Your task to perform on an android device: Open the Play Movies app and select the watchlist tab. Image 0: 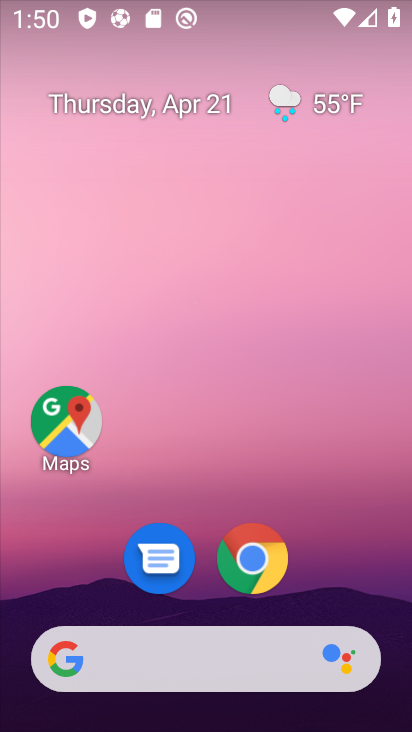
Step 0: drag from (237, 269) to (294, 30)
Your task to perform on an android device: Open the Play Movies app and select the watchlist tab. Image 1: 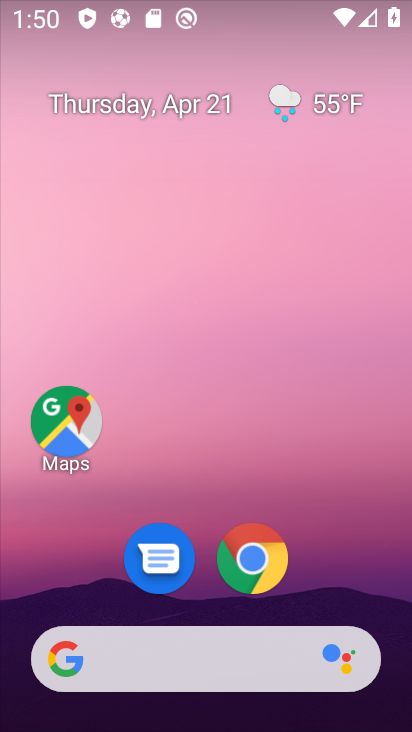
Step 1: drag from (185, 612) to (331, 42)
Your task to perform on an android device: Open the Play Movies app and select the watchlist tab. Image 2: 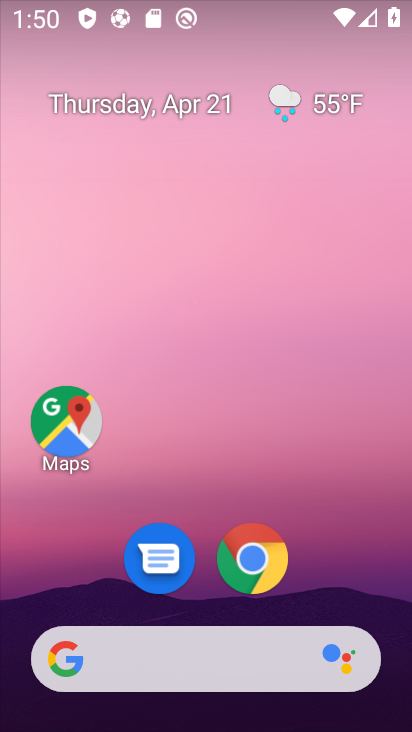
Step 2: drag from (203, 609) to (328, 39)
Your task to perform on an android device: Open the Play Movies app and select the watchlist tab. Image 3: 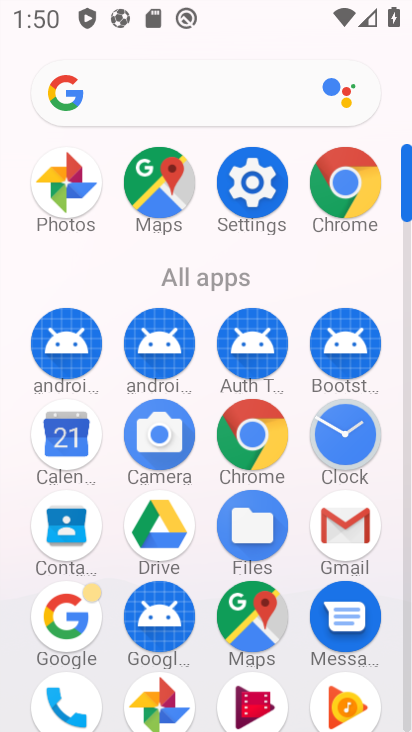
Step 3: click (262, 689)
Your task to perform on an android device: Open the Play Movies app and select the watchlist tab. Image 4: 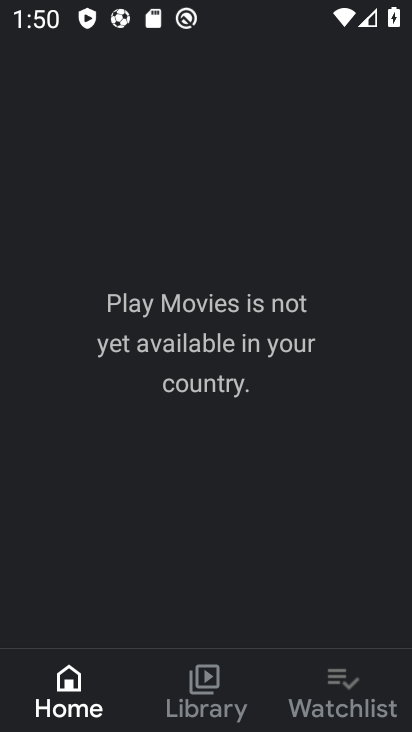
Step 4: click (337, 675)
Your task to perform on an android device: Open the Play Movies app and select the watchlist tab. Image 5: 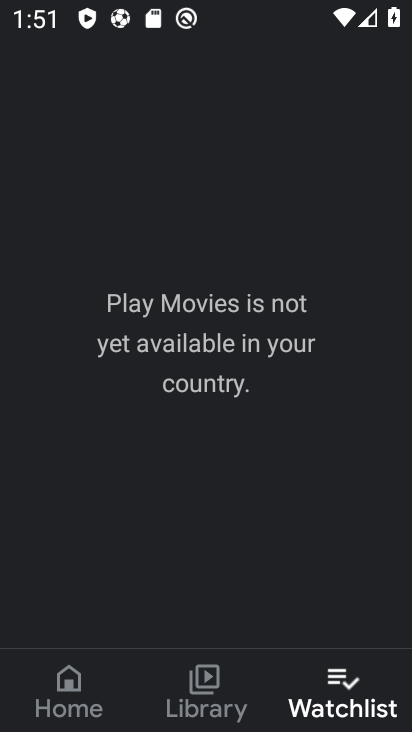
Step 5: task complete